Your task to perform on an android device: toggle data saver in the chrome app Image 0: 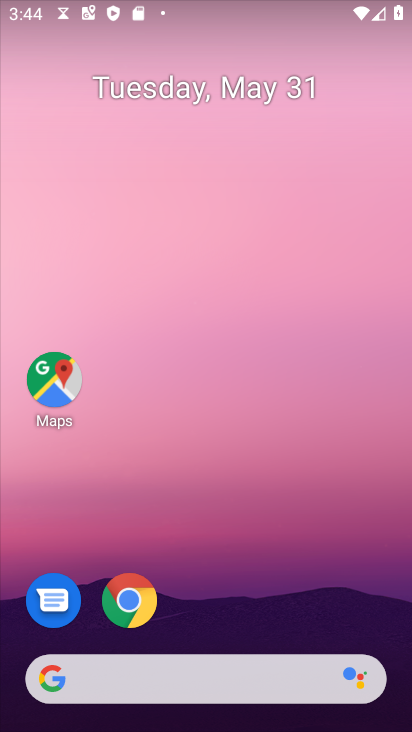
Step 0: press home button
Your task to perform on an android device: toggle data saver in the chrome app Image 1: 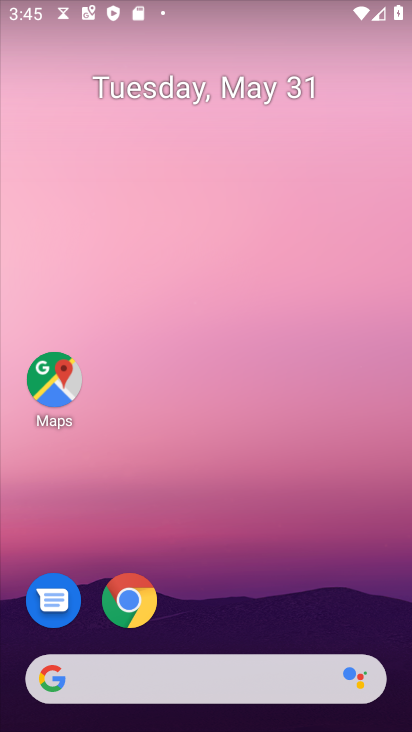
Step 1: click (127, 597)
Your task to perform on an android device: toggle data saver in the chrome app Image 2: 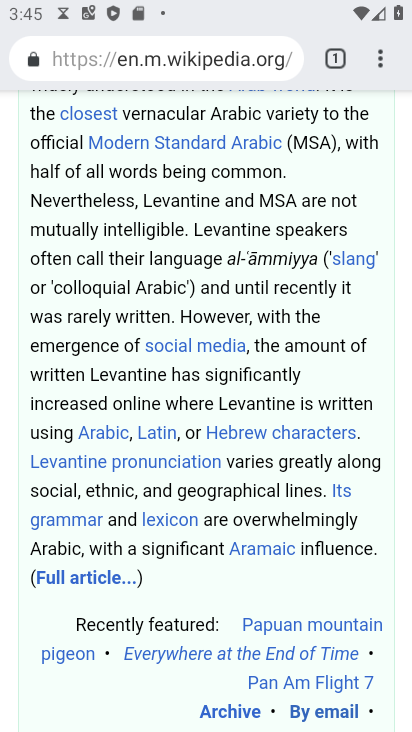
Step 2: click (376, 54)
Your task to perform on an android device: toggle data saver in the chrome app Image 3: 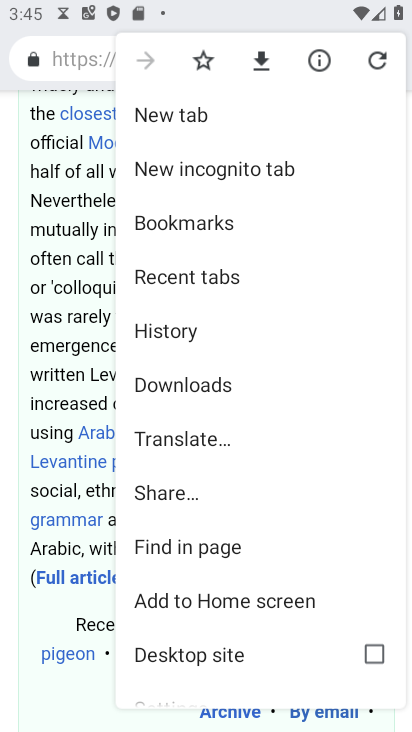
Step 3: drag from (268, 646) to (277, 102)
Your task to perform on an android device: toggle data saver in the chrome app Image 4: 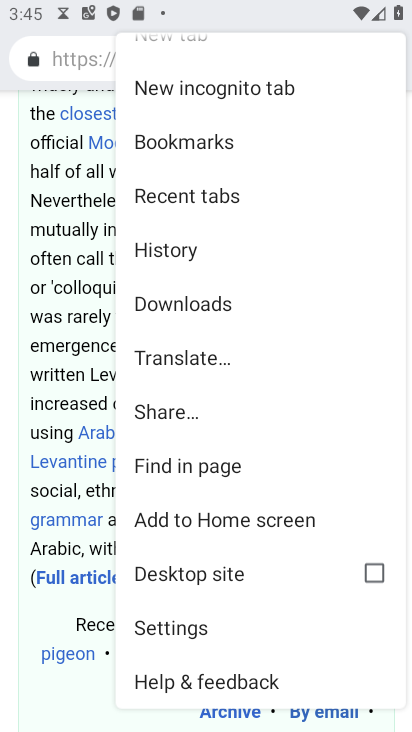
Step 4: click (231, 623)
Your task to perform on an android device: toggle data saver in the chrome app Image 5: 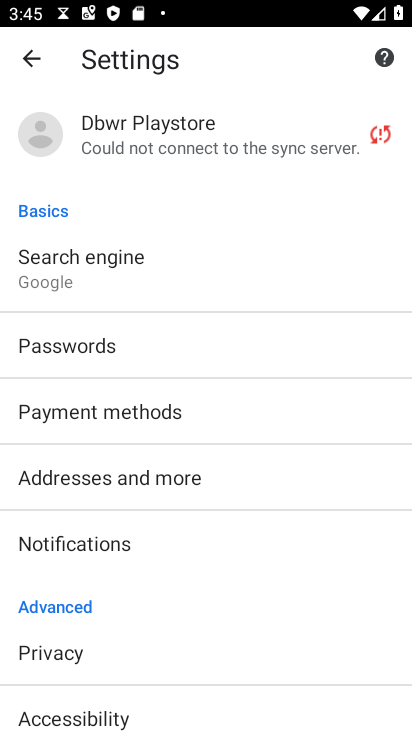
Step 5: drag from (213, 393) to (229, 98)
Your task to perform on an android device: toggle data saver in the chrome app Image 6: 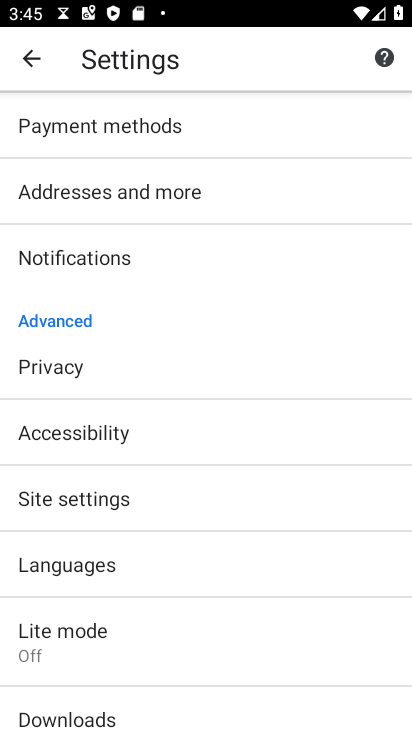
Step 6: click (146, 643)
Your task to perform on an android device: toggle data saver in the chrome app Image 7: 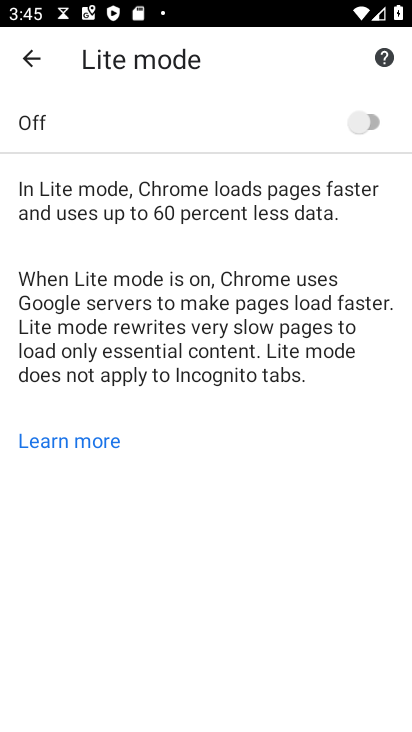
Step 7: click (373, 112)
Your task to perform on an android device: toggle data saver in the chrome app Image 8: 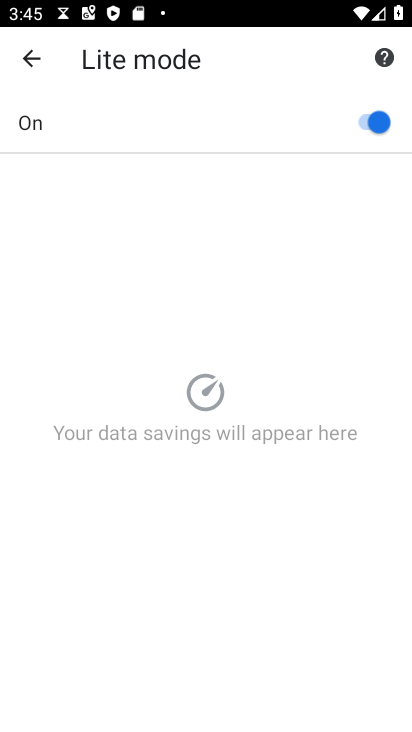
Step 8: task complete